Your task to perform on an android device: Do I have any events this weekend? Image 0: 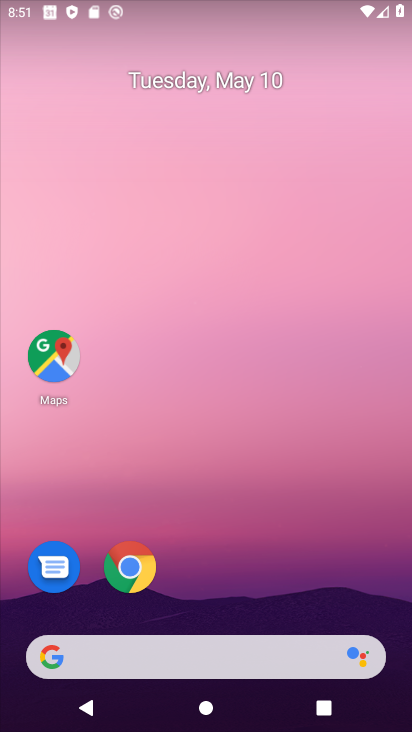
Step 0: drag from (307, 505) to (343, 74)
Your task to perform on an android device: Do I have any events this weekend? Image 1: 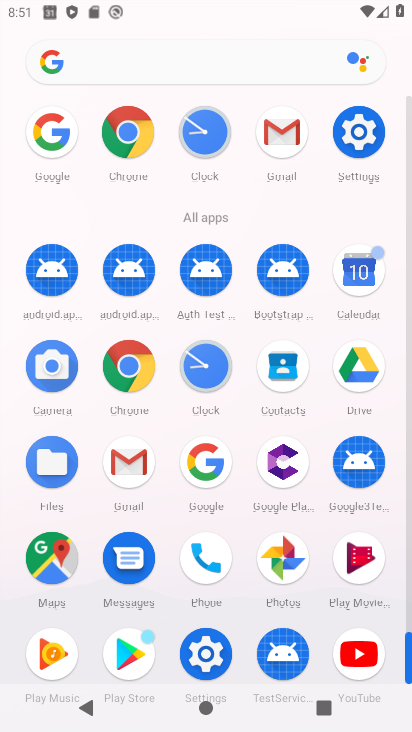
Step 1: click (356, 286)
Your task to perform on an android device: Do I have any events this weekend? Image 2: 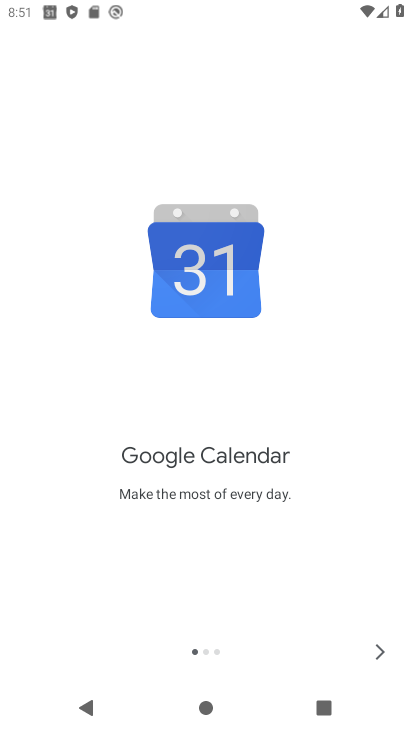
Step 2: click (376, 651)
Your task to perform on an android device: Do I have any events this weekend? Image 3: 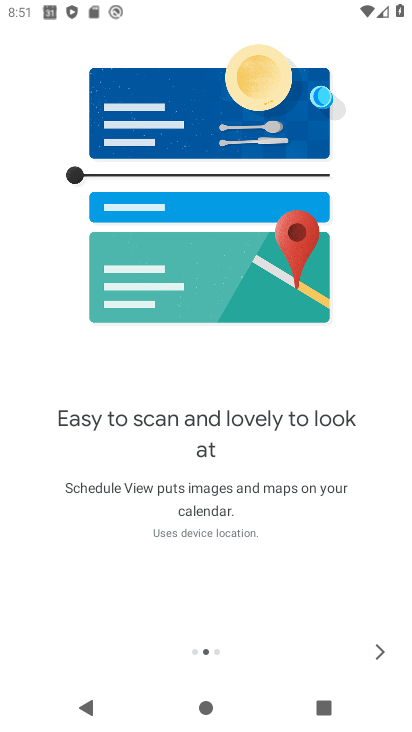
Step 3: click (378, 657)
Your task to perform on an android device: Do I have any events this weekend? Image 4: 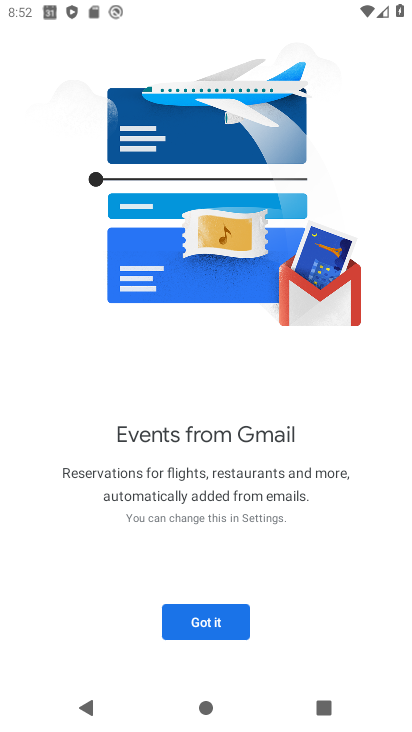
Step 4: click (244, 626)
Your task to perform on an android device: Do I have any events this weekend? Image 5: 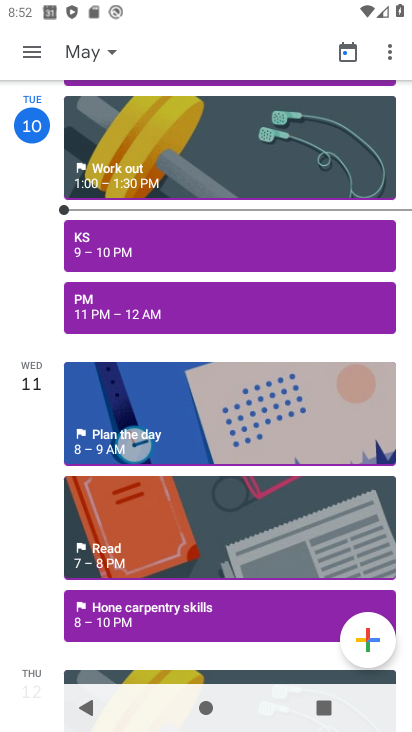
Step 5: click (80, 64)
Your task to perform on an android device: Do I have any events this weekend? Image 6: 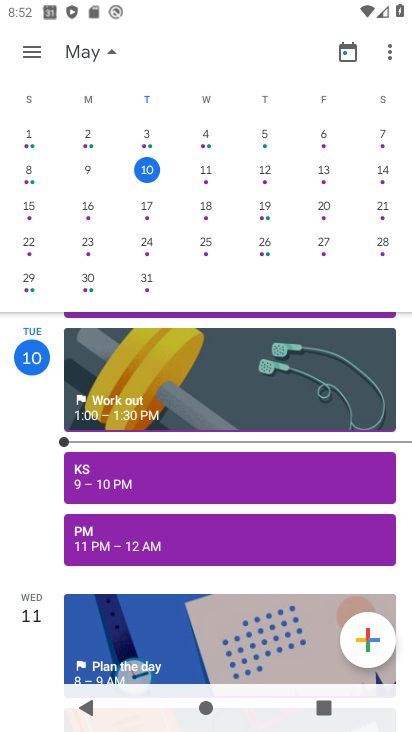
Step 6: click (202, 175)
Your task to perform on an android device: Do I have any events this weekend? Image 7: 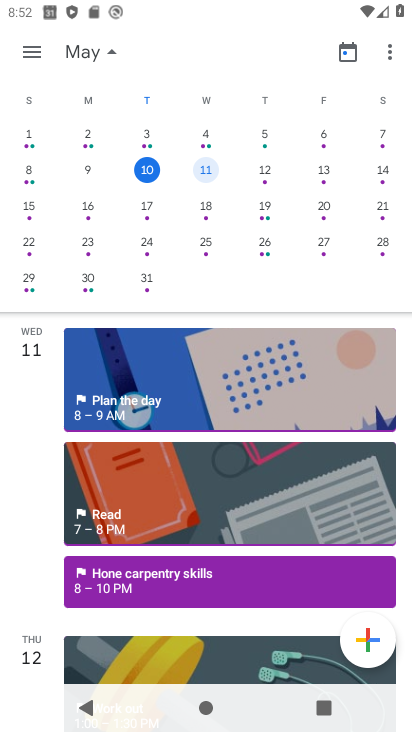
Step 7: task complete